Your task to perform on an android device: Add "acer predator" to the cart on amazon, then select checkout. Image 0: 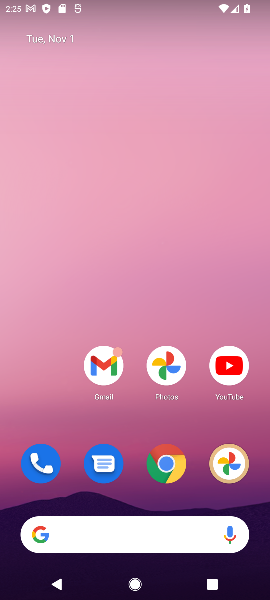
Step 0: drag from (141, 426) to (179, 175)
Your task to perform on an android device: Add "acer predator" to the cart on amazon, then select checkout. Image 1: 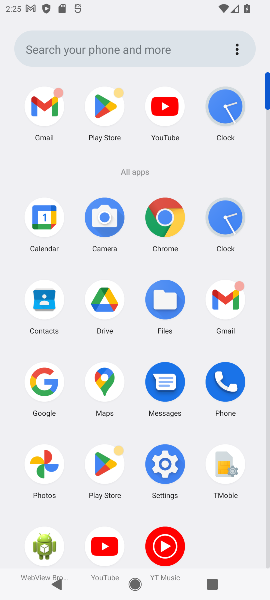
Step 1: click (170, 216)
Your task to perform on an android device: Add "acer predator" to the cart on amazon, then select checkout. Image 2: 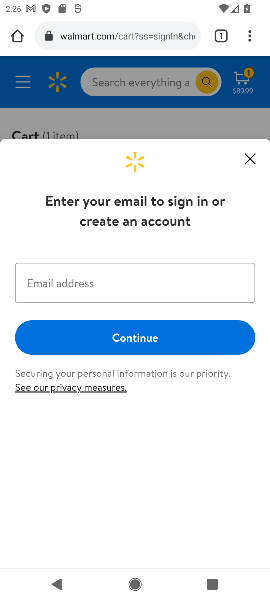
Step 2: click (146, 37)
Your task to perform on an android device: Add "acer predator" to the cart on amazon, then select checkout. Image 3: 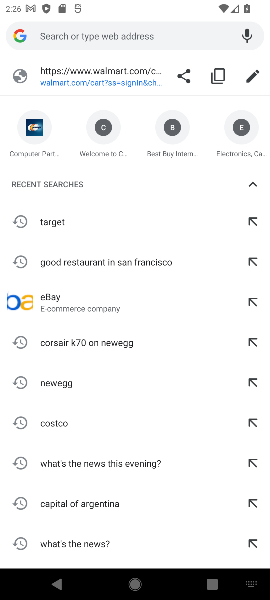
Step 3: type "amazon.com"
Your task to perform on an android device: Add "acer predator" to the cart on amazon, then select checkout. Image 4: 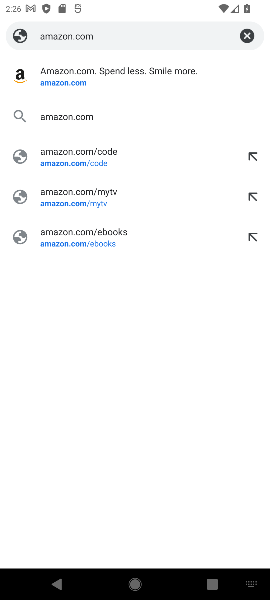
Step 4: press enter
Your task to perform on an android device: Add "acer predator" to the cart on amazon, then select checkout. Image 5: 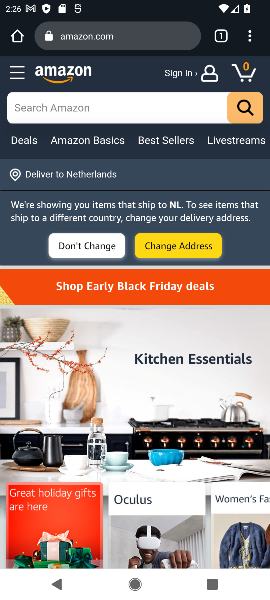
Step 5: click (153, 109)
Your task to perform on an android device: Add "acer predator" to the cart on amazon, then select checkout. Image 6: 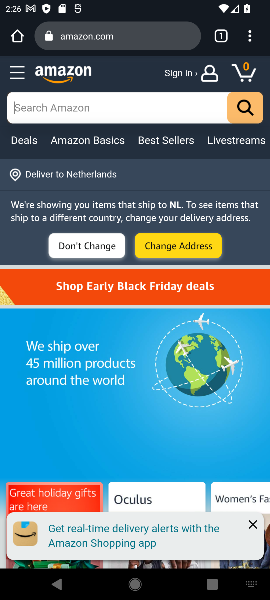
Step 6: type "acer predator"
Your task to perform on an android device: Add "acer predator" to the cart on amazon, then select checkout. Image 7: 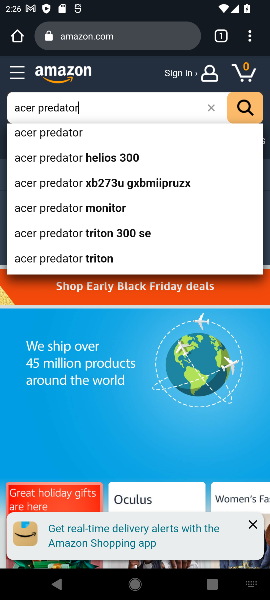
Step 7: press enter
Your task to perform on an android device: Add "acer predator" to the cart on amazon, then select checkout. Image 8: 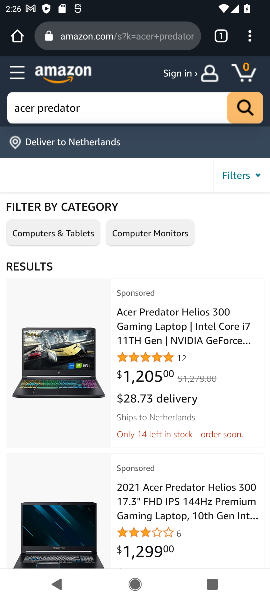
Step 8: drag from (157, 480) to (168, 213)
Your task to perform on an android device: Add "acer predator" to the cart on amazon, then select checkout. Image 9: 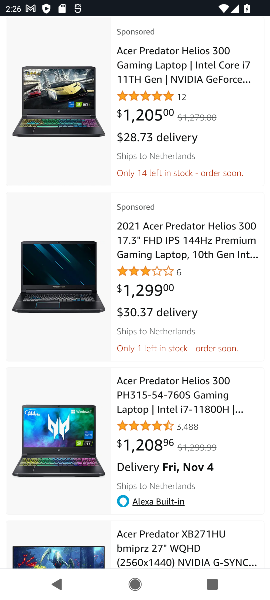
Step 9: click (142, 393)
Your task to perform on an android device: Add "acer predator" to the cart on amazon, then select checkout. Image 10: 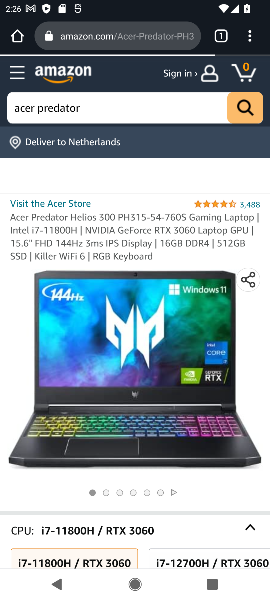
Step 10: drag from (138, 394) to (214, 160)
Your task to perform on an android device: Add "acer predator" to the cart on amazon, then select checkout. Image 11: 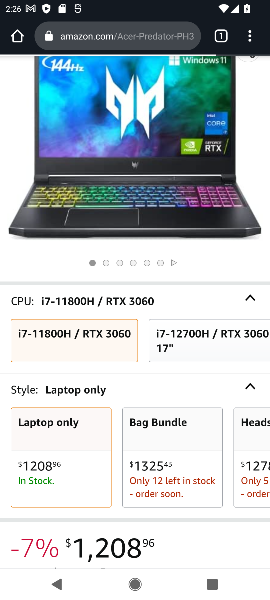
Step 11: drag from (182, 518) to (197, 215)
Your task to perform on an android device: Add "acer predator" to the cart on amazon, then select checkout. Image 12: 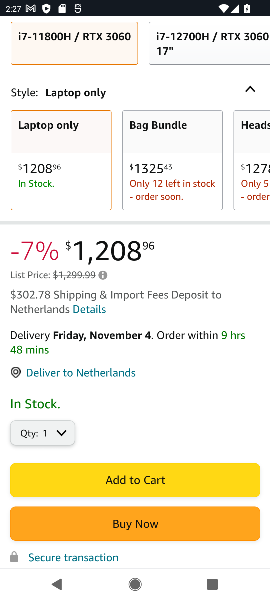
Step 12: click (140, 483)
Your task to perform on an android device: Add "acer predator" to the cart on amazon, then select checkout. Image 13: 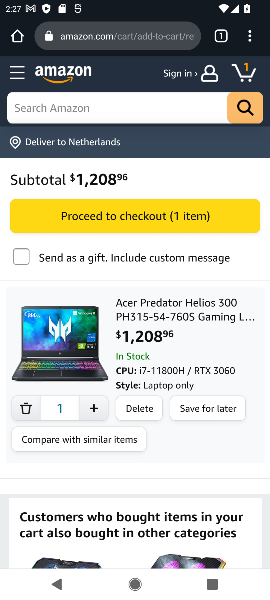
Step 13: drag from (140, 483) to (212, 244)
Your task to perform on an android device: Add "acer predator" to the cart on amazon, then select checkout. Image 14: 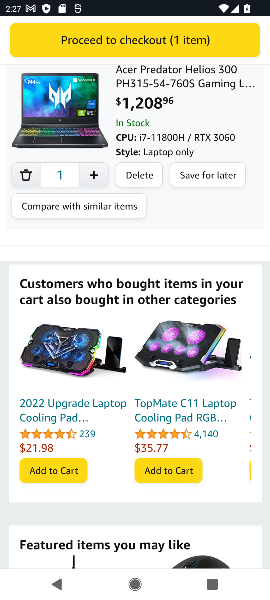
Step 14: drag from (69, 515) to (188, 242)
Your task to perform on an android device: Add "acer predator" to the cart on amazon, then select checkout. Image 15: 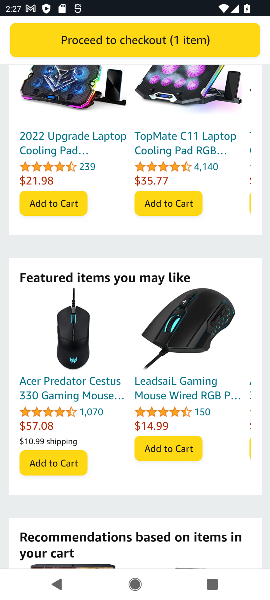
Step 15: drag from (105, 478) to (182, 337)
Your task to perform on an android device: Add "acer predator" to the cart on amazon, then select checkout. Image 16: 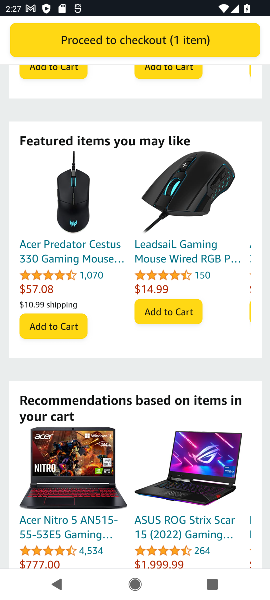
Step 16: drag from (121, 477) to (191, 301)
Your task to perform on an android device: Add "acer predator" to the cart on amazon, then select checkout. Image 17: 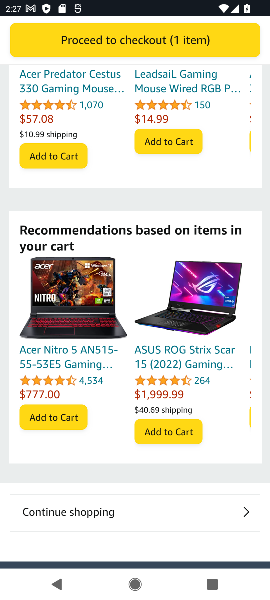
Step 17: drag from (138, 482) to (193, 306)
Your task to perform on an android device: Add "acer predator" to the cart on amazon, then select checkout. Image 18: 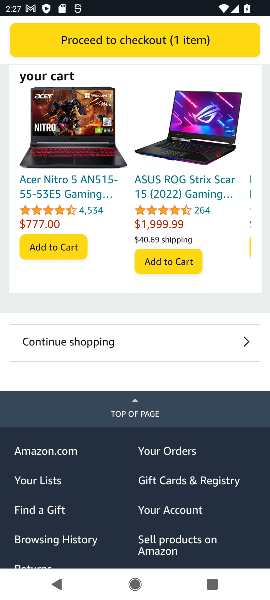
Step 18: drag from (135, 99) to (131, 372)
Your task to perform on an android device: Add "acer predator" to the cart on amazon, then select checkout. Image 19: 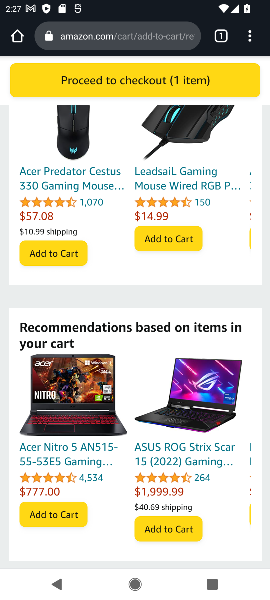
Step 19: click (133, 82)
Your task to perform on an android device: Add "acer predator" to the cart on amazon, then select checkout. Image 20: 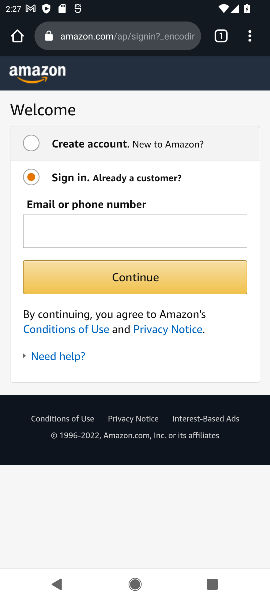
Step 20: task complete